Your task to perform on an android device: add a contact in the contacts app Image 0: 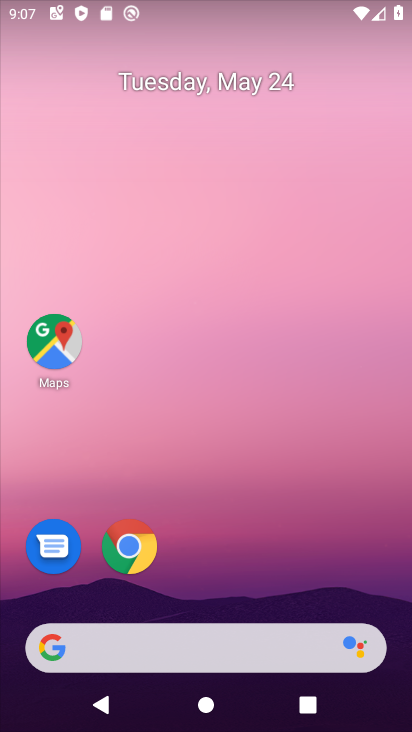
Step 0: drag from (180, 627) to (252, 197)
Your task to perform on an android device: add a contact in the contacts app Image 1: 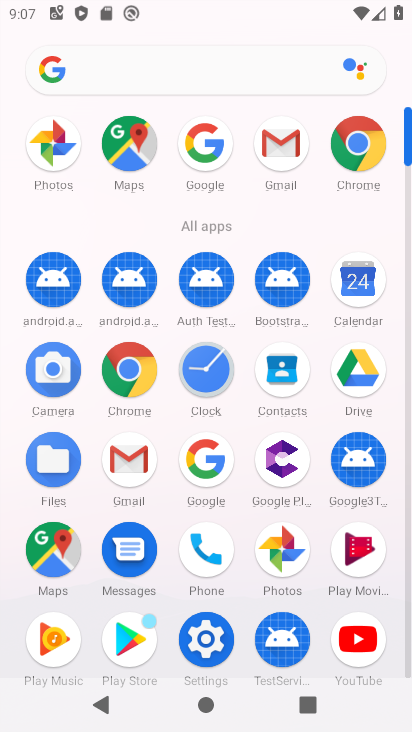
Step 1: click (300, 372)
Your task to perform on an android device: add a contact in the contacts app Image 2: 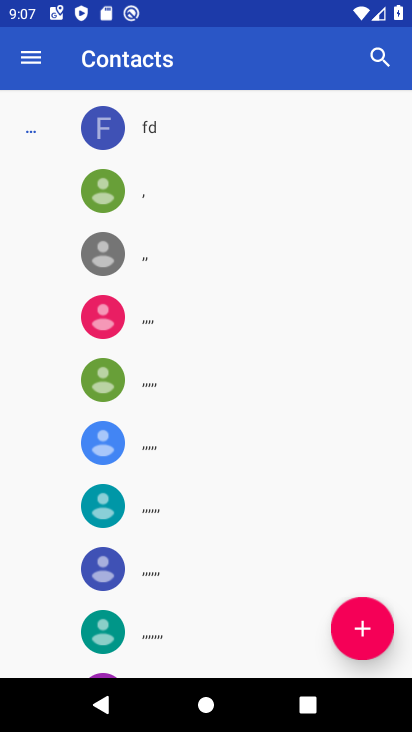
Step 2: click (355, 631)
Your task to perform on an android device: add a contact in the contacts app Image 3: 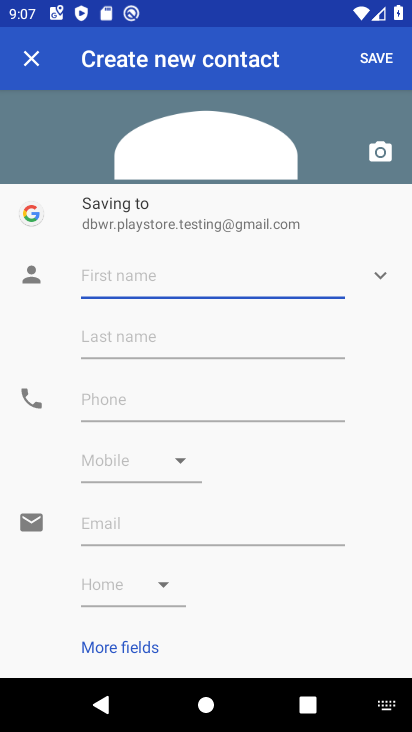
Step 3: click (166, 286)
Your task to perform on an android device: add a contact in the contacts app Image 4: 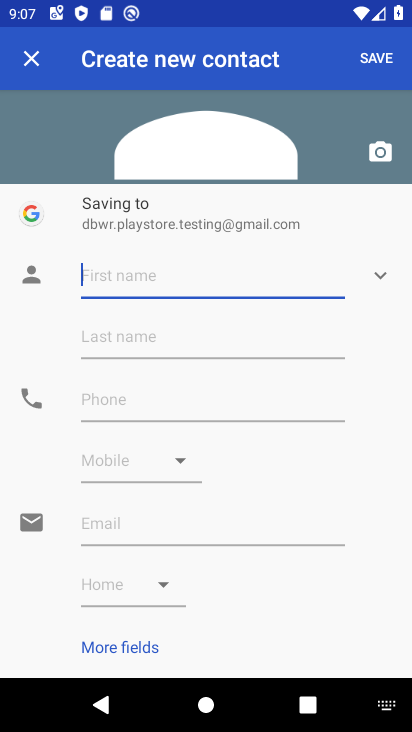
Step 4: type "rani"
Your task to perform on an android device: add a contact in the contacts app Image 5: 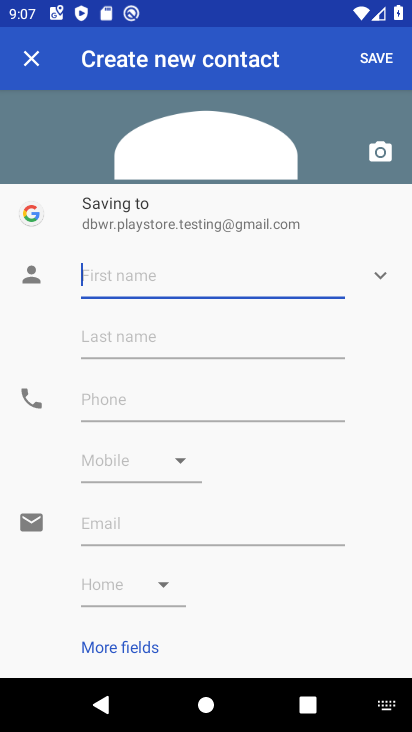
Step 5: click (162, 342)
Your task to perform on an android device: add a contact in the contacts app Image 6: 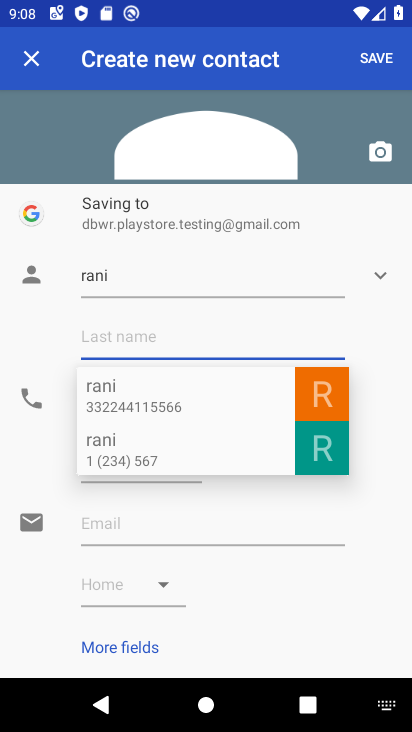
Step 6: type "rajpoot"
Your task to perform on an android device: add a contact in the contacts app Image 7: 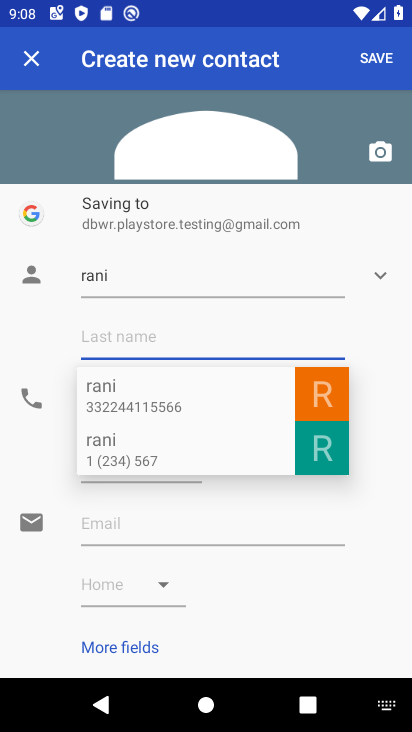
Step 7: click (70, 526)
Your task to perform on an android device: add a contact in the contacts app Image 8: 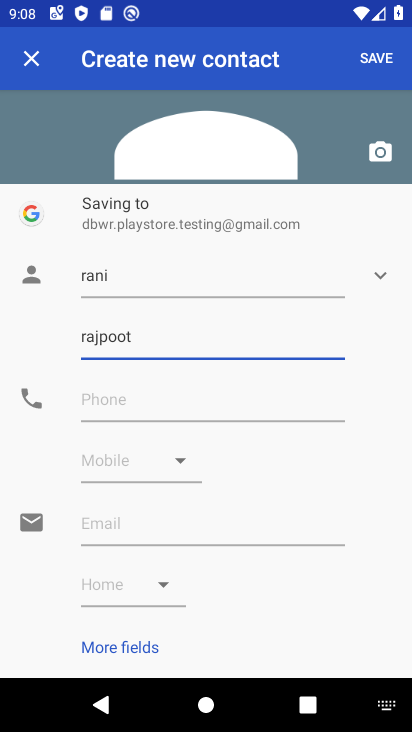
Step 8: click (105, 405)
Your task to perform on an android device: add a contact in the contacts app Image 9: 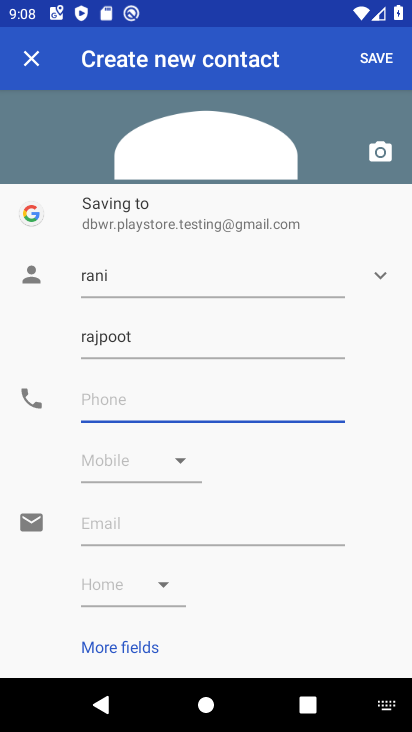
Step 9: type "7876757973"
Your task to perform on an android device: add a contact in the contacts app Image 10: 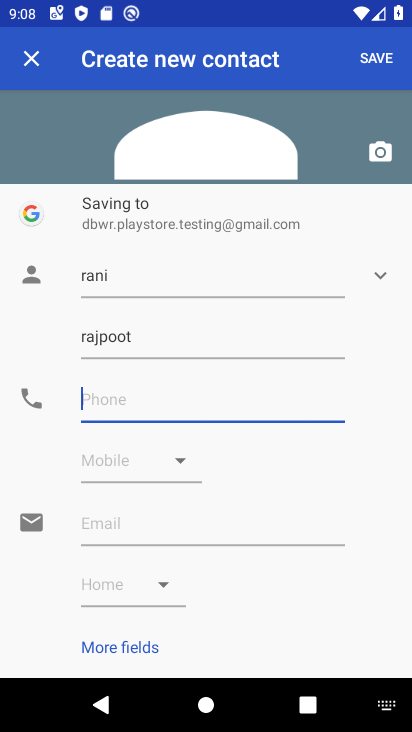
Step 10: click (137, 522)
Your task to perform on an android device: add a contact in the contacts app Image 11: 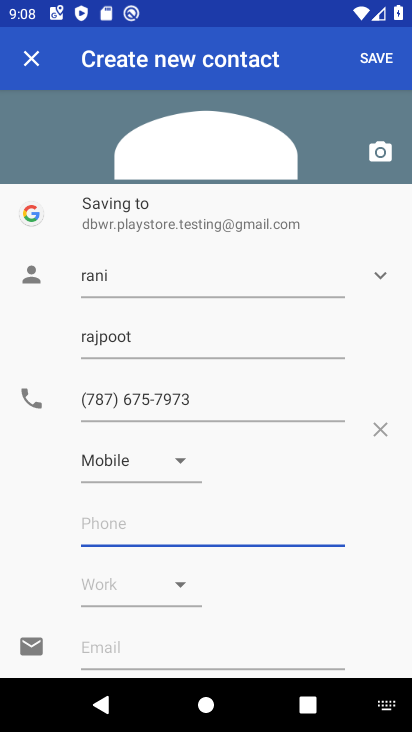
Step 11: click (382, 58)
Your task to perform on an android device: add a contact in the contacts app Image 12: 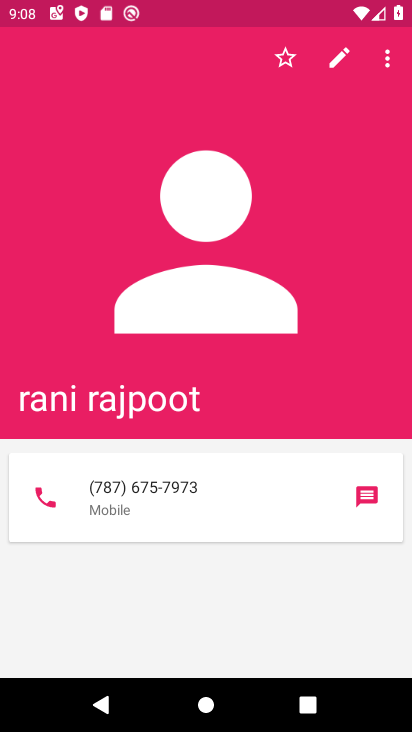
Step 12: task complete